Your task to perform on an android device: Open the map Image 0: 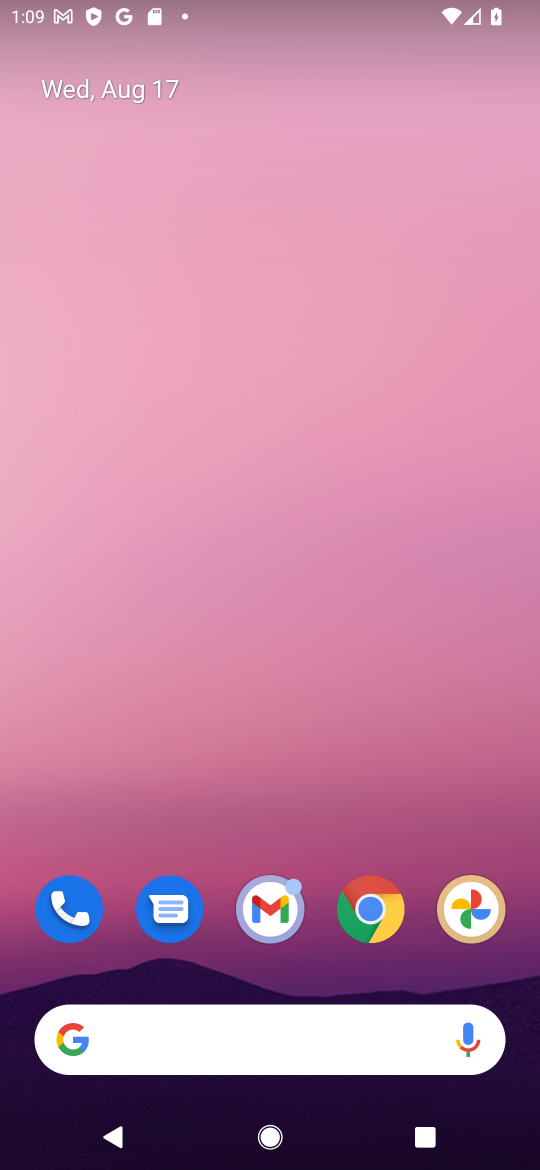
Step 0: drag from (397, 514) to (435, 212)
Your task to perform on an android device: Open the map Image 1: 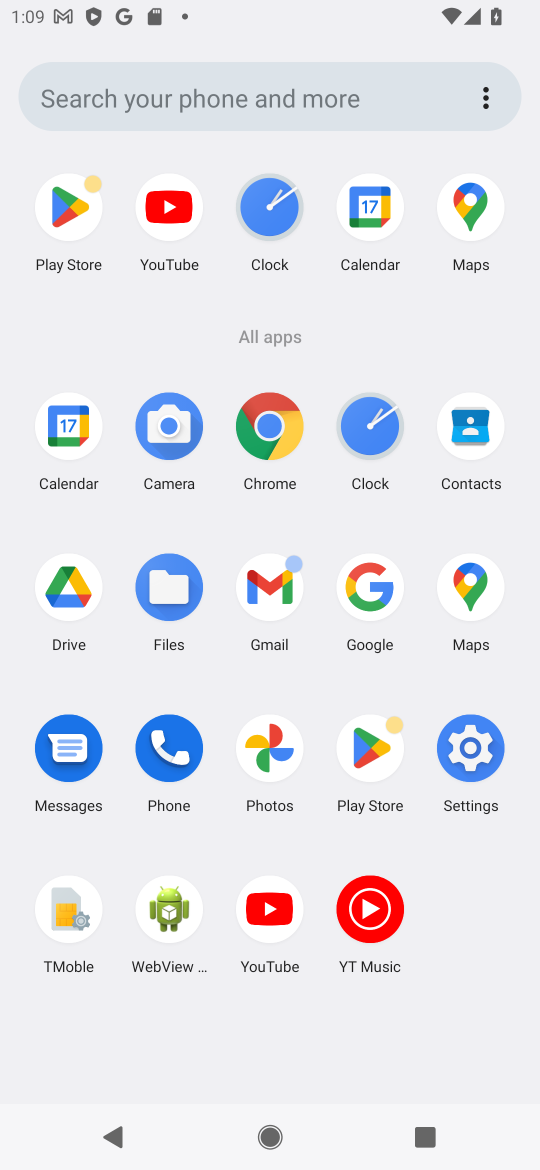
Step 1: click (477, 566)
Your task to perform on an android device: Open the map Image 2: 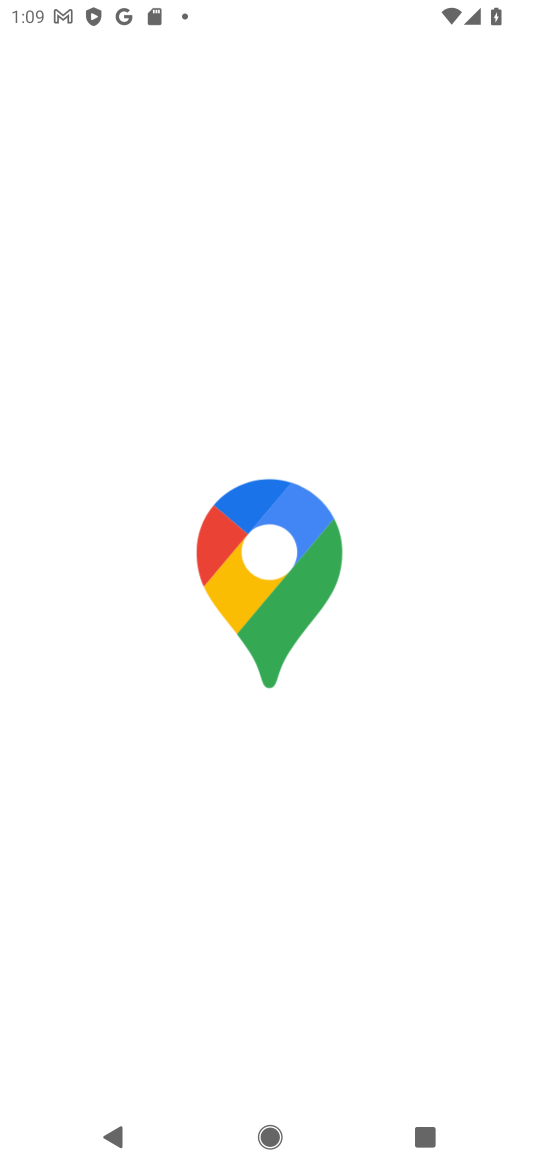
Step 2: task complete